Your task to perform on an android device: empty trash in google photos Image 0: 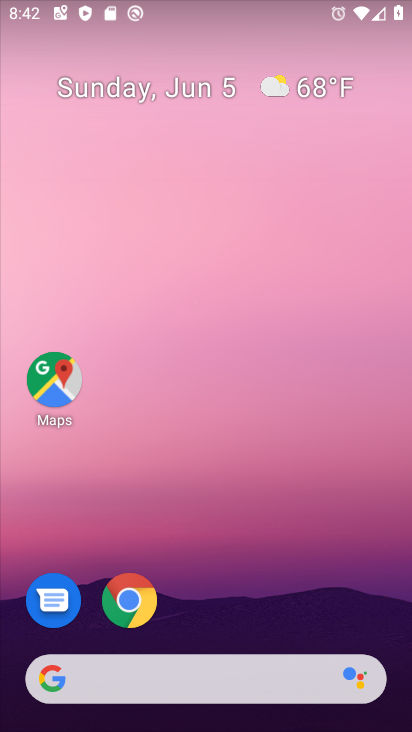
Step 0: drag from (388, 621) to (250, 100)
Your task to perform on an android device: empty trash in google photos Image 1: 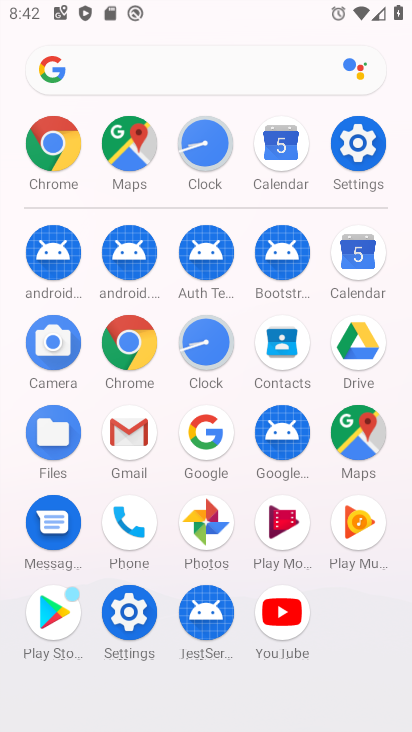
Step 1: click (193, 538)
Your task to perform on an android device: empty trash in google photos Image 2: 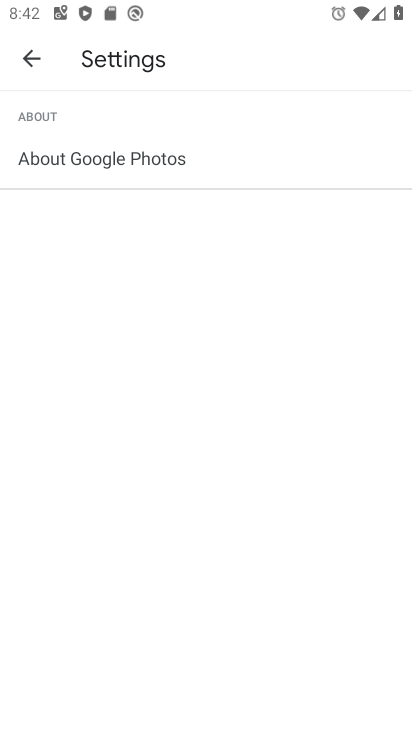
Step 2: press back button
Your task to perform on an android device: empty trash in google photos Image 3: 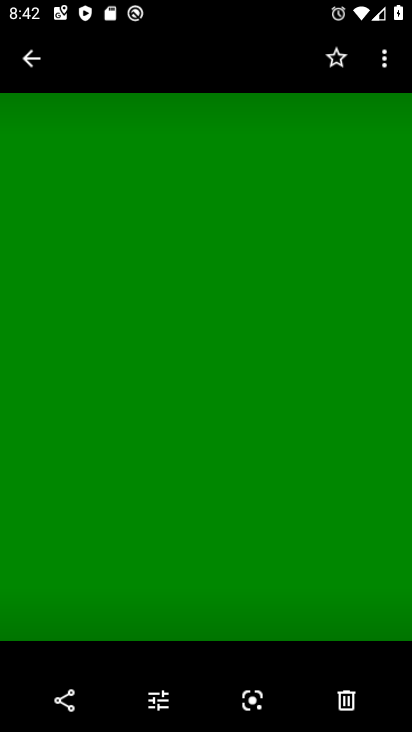
Step 3: press back button
Your task to perform on an android device: empty trash in google photos Image 4: 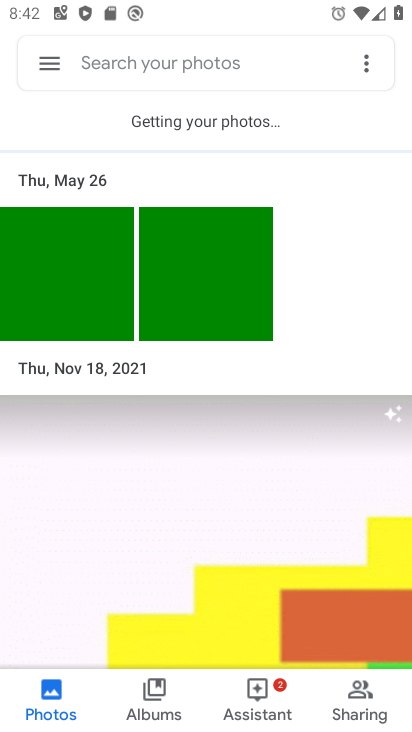
Step 4: click (37, 64)
Your task to perform on an android device: empty trash in google photos Image 5: 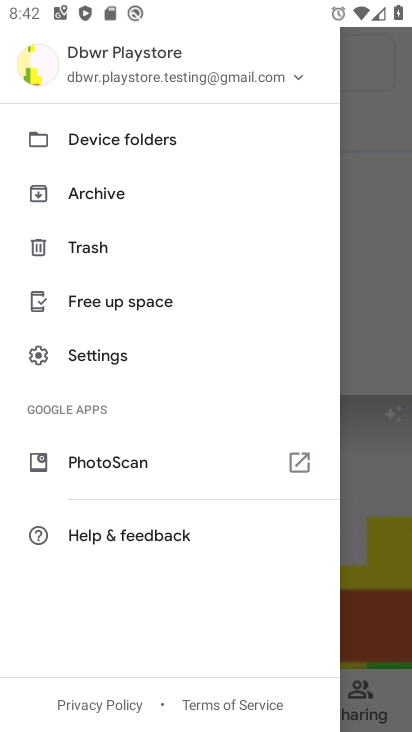
Step 5: click (107, 247)
Your task to perform on an android device: empty trash in google photos Image 6: 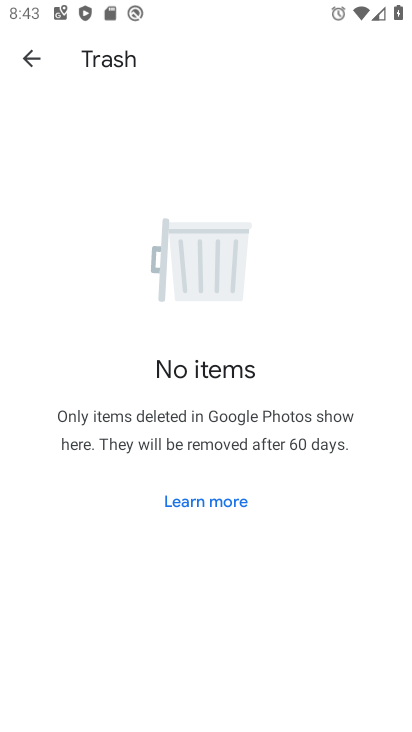
Step 6: task complete